Your task to perform on an android device: turn off improve location accuracy Image 0: 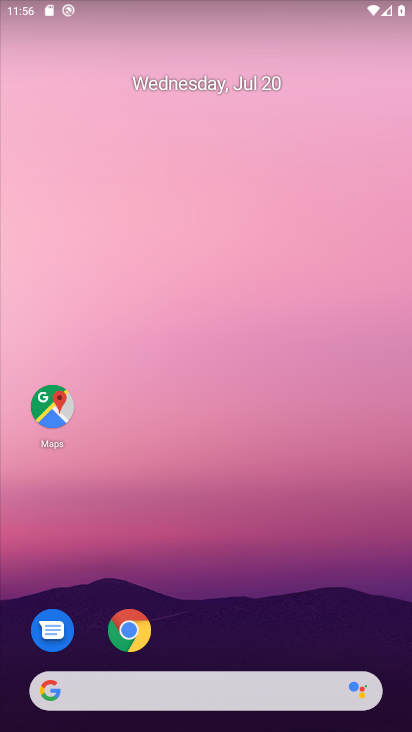
Step 0: drag from (171, 648) to (197, 234)
Your task to perform on an android device: turn off improve location accuracy Image 1: 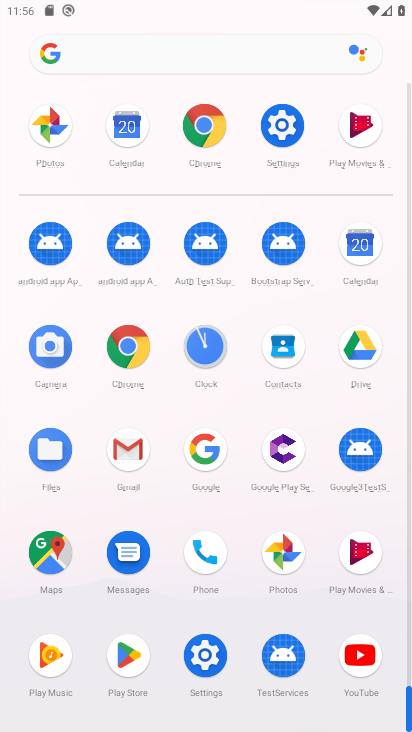
Step 1: click (204, 655)
Your task to perform on an android device: turn off improve location accuracy Image 2: 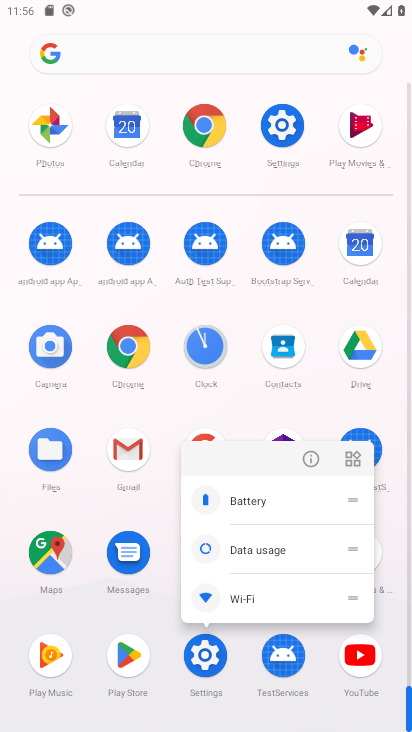
Step 2: click (315, 452)
Your task to perform on an android device: turn off improve location accuracy Image 3: 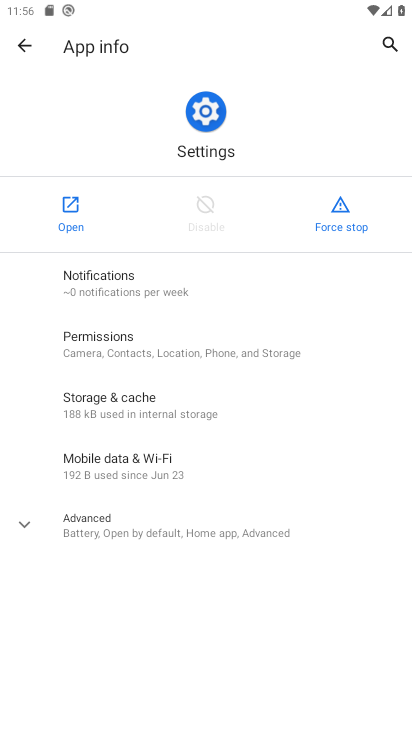
Step 3: click (65, 212)
Your task to perform on an android device: turn off improve location accuracy Image 4: 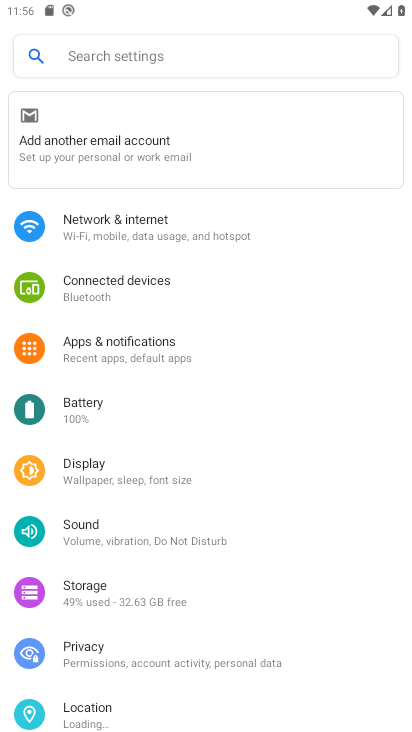
Step 4: drag from (163, 647) to (248, 167)
Your task to perform on an android device: turn off improve location accuracy Image 5: 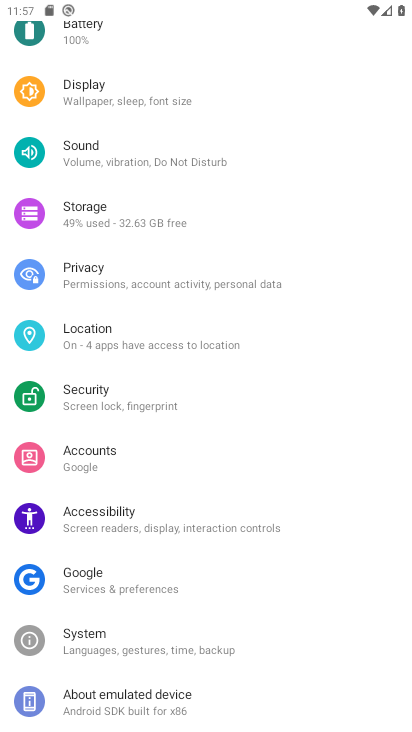
Step 5: click (130, 651)
Your task to perform on an android device: turn off improve location accuracy Image 6: 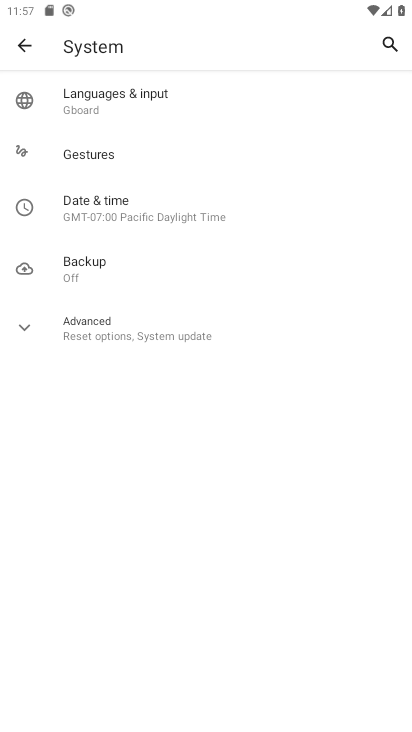
Step 6: click (15, 34)
Your task to perform on an android device: turn off improve location accuracy Image 7: 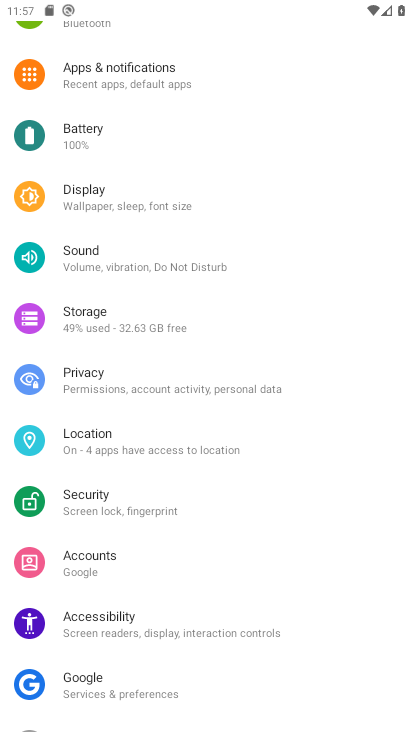
Step 7: click (123, 440)
Your task to perform on an android device: turn off improve location accuracy Image 8: 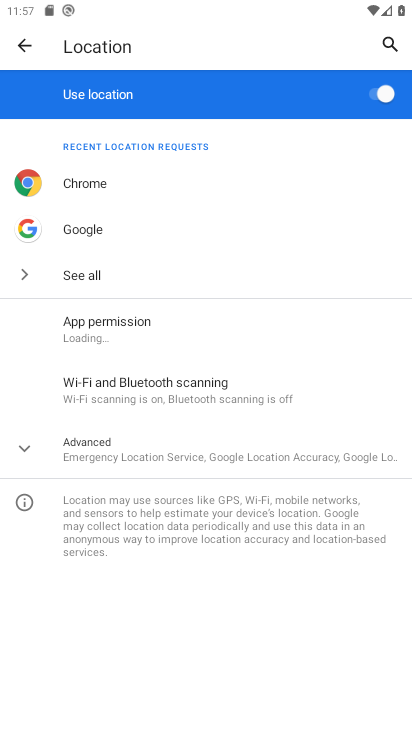
Step 8: click (95, 454)
Your task to perform on an android device: turn off improve location accuracy Image 9: 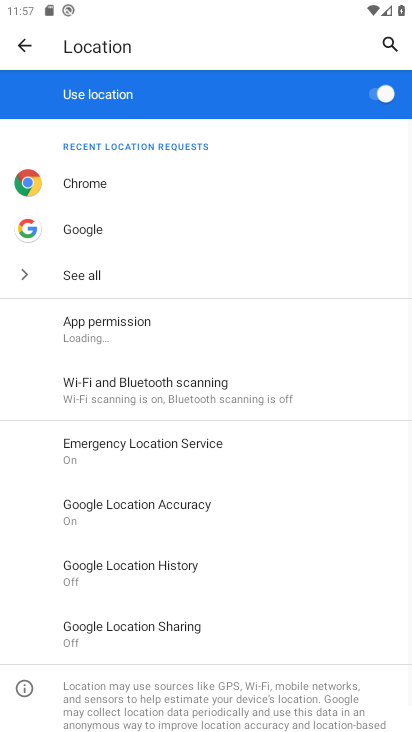
Step 9: click (189, 502)
Your task to perform on an android device: turn off improve location accuracy Image 10: 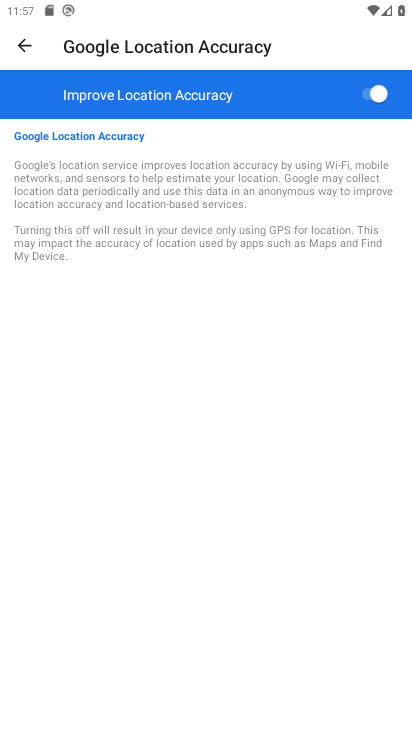
Step 10: click (375, 87)
Your task to perform on an android device: turn off improve location accuracy Image 11: 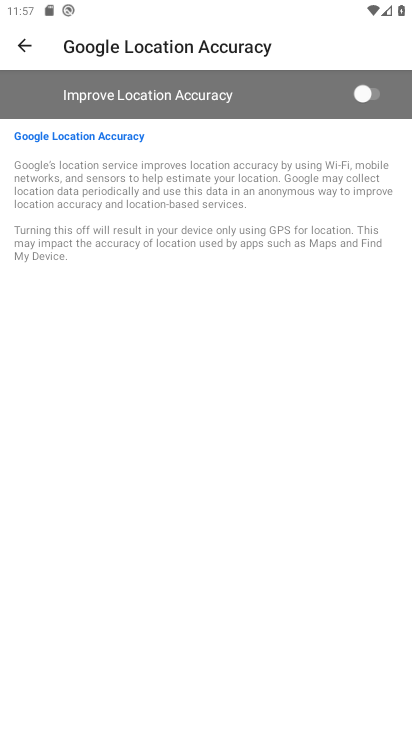
Step 11: task complete